Your task to perform on an android device: uninstall "Firefox Browser" Image 0: 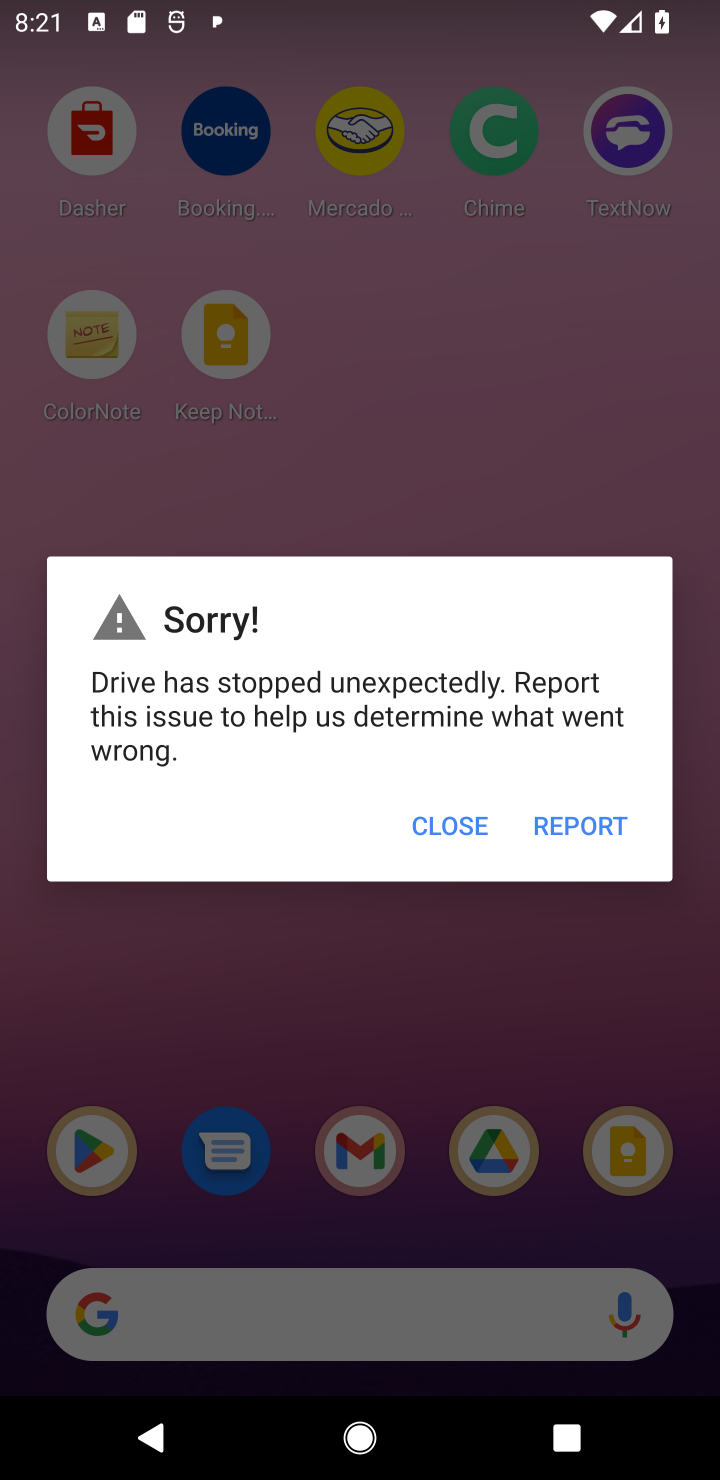
Step 0: press home button
Your task to perform on an android device: uninstall "Firefox Browser" Image 1: 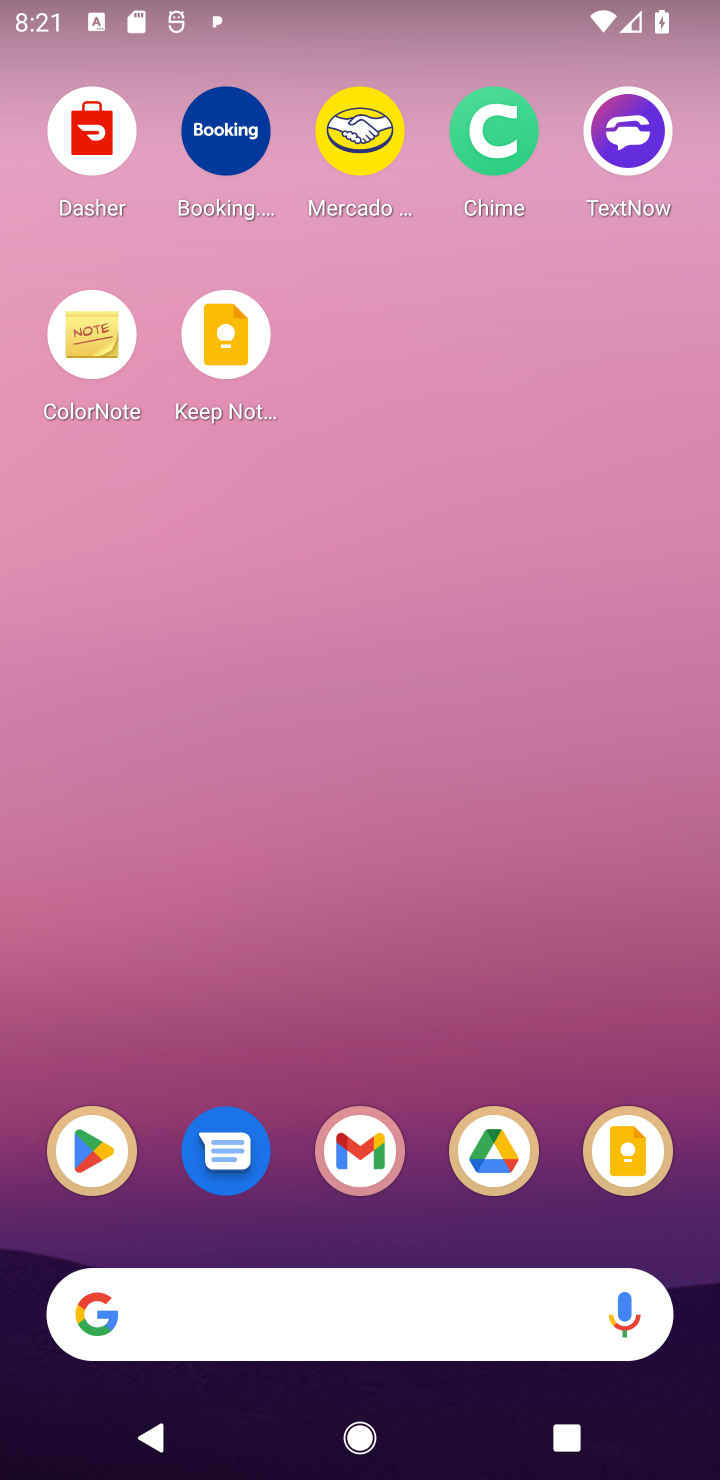
Step 1: click (95, 1165)
Your task to perform on an android device: uninstall "Firefox Browser" Image 2: 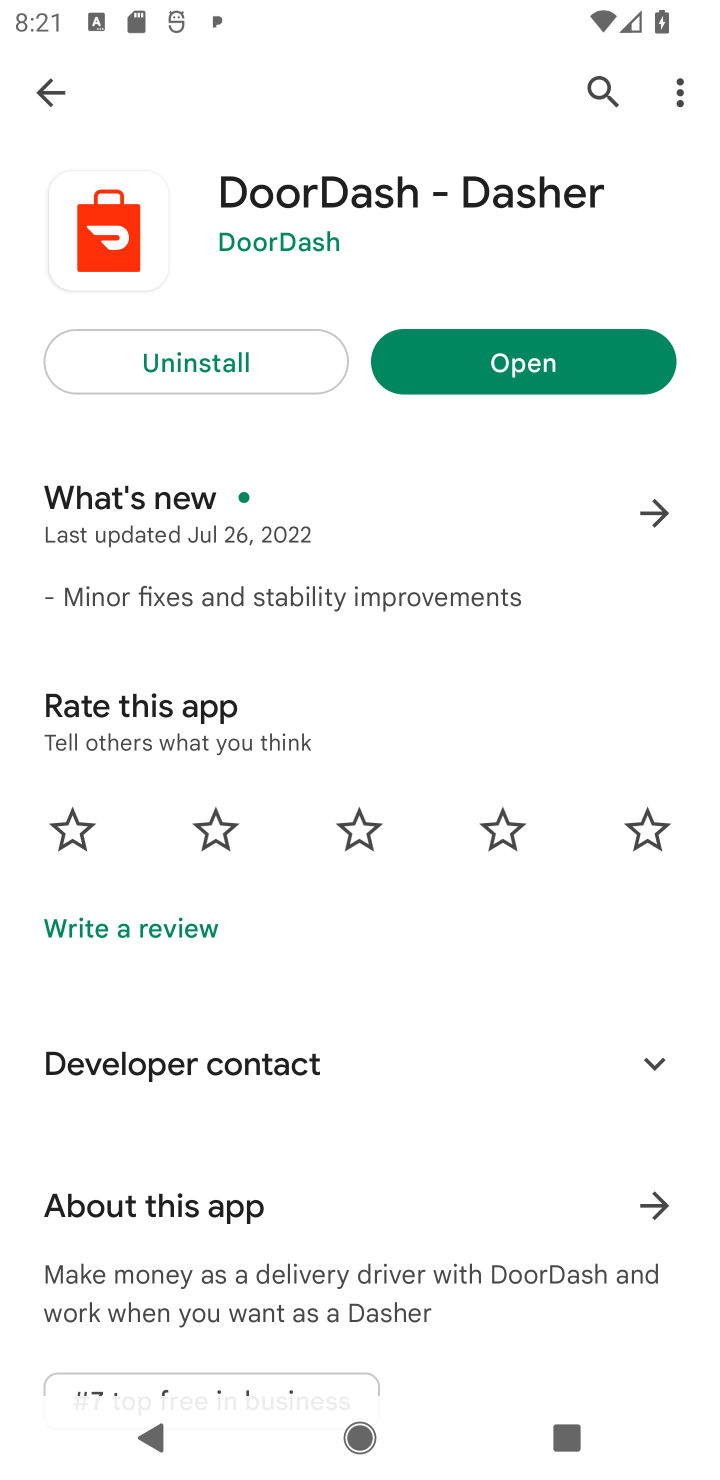
Step 2: click (603, 93)
Your task to perform on an android device: uninstall "Firefox Browser" Image 3: 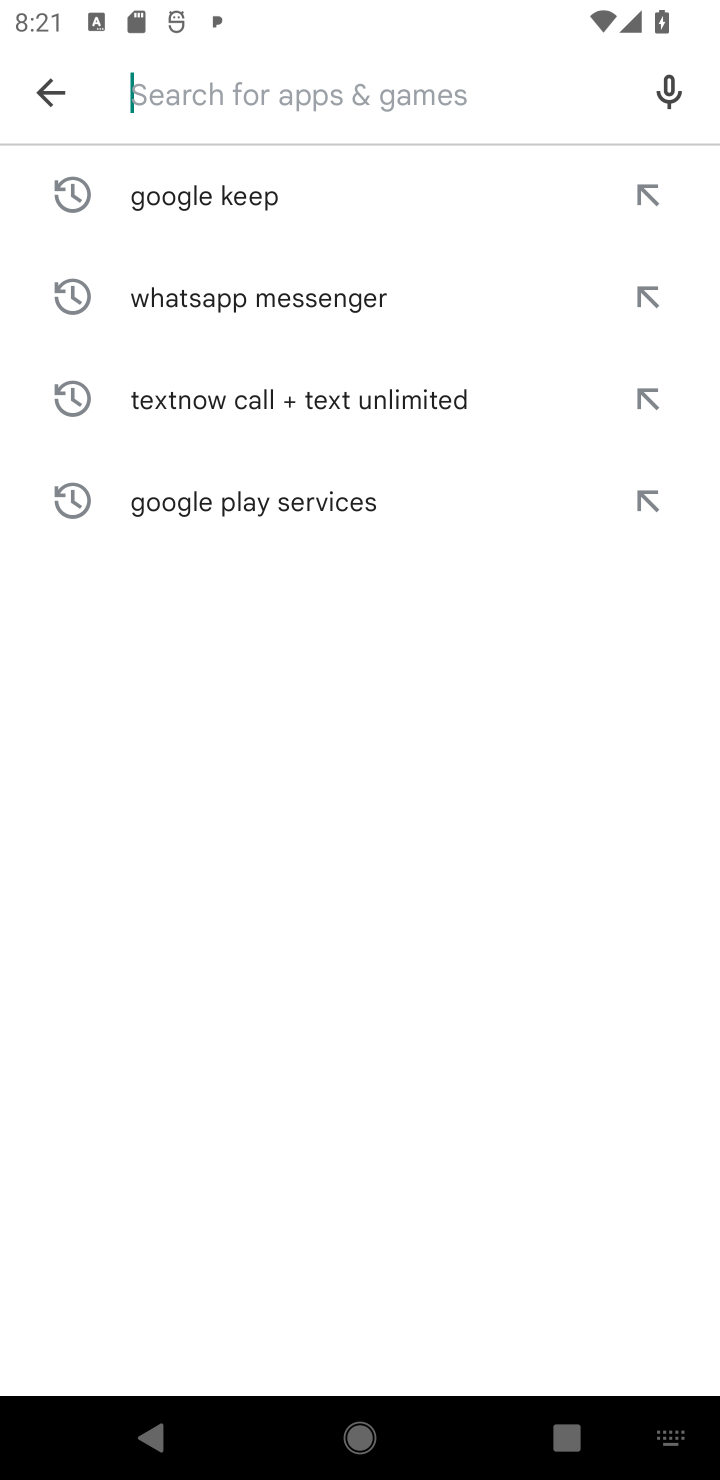
Step 3: type "Firefox Browser"
Your task to perform on an android device: uninstall "Firefox Browser" Image 4: 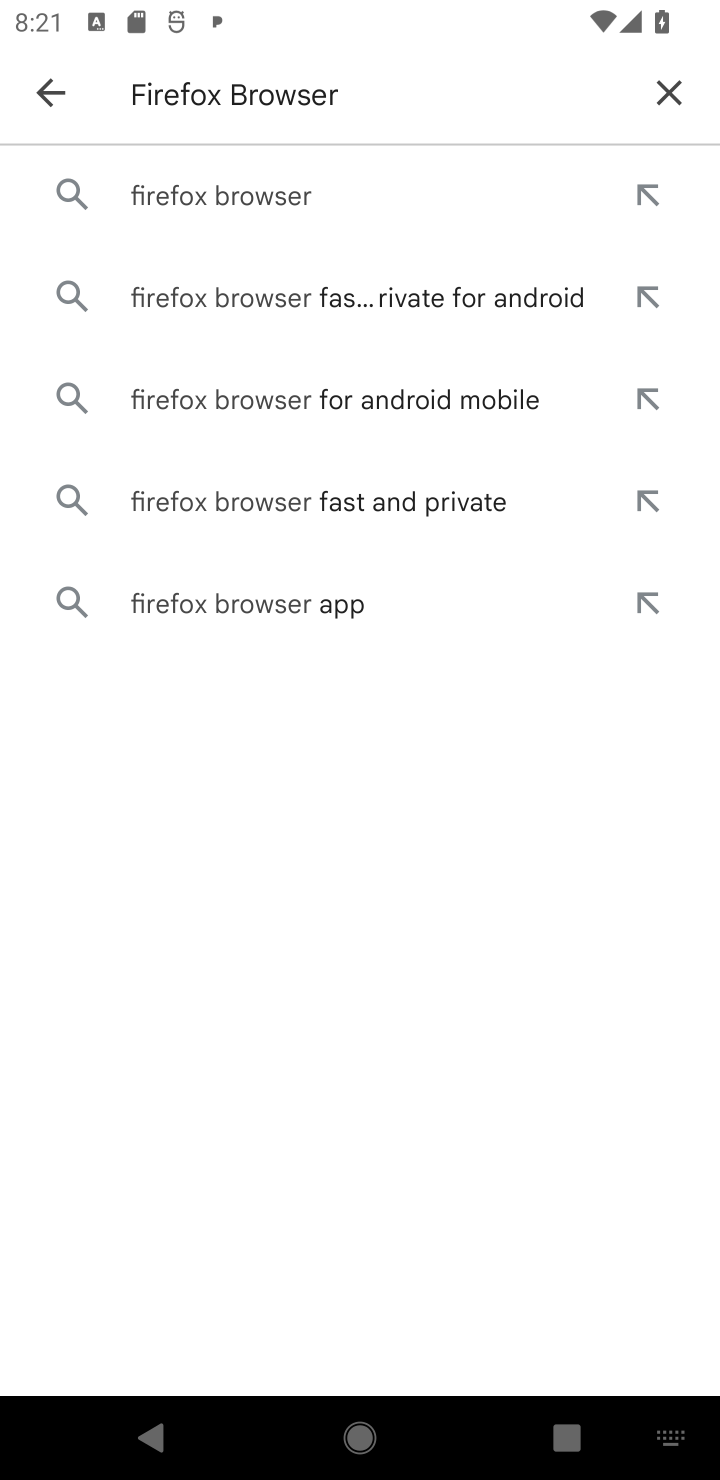
Step 4: click (201, 208)
Your task to perform on an android device: uninstall "Firefox Browser" Image 5: 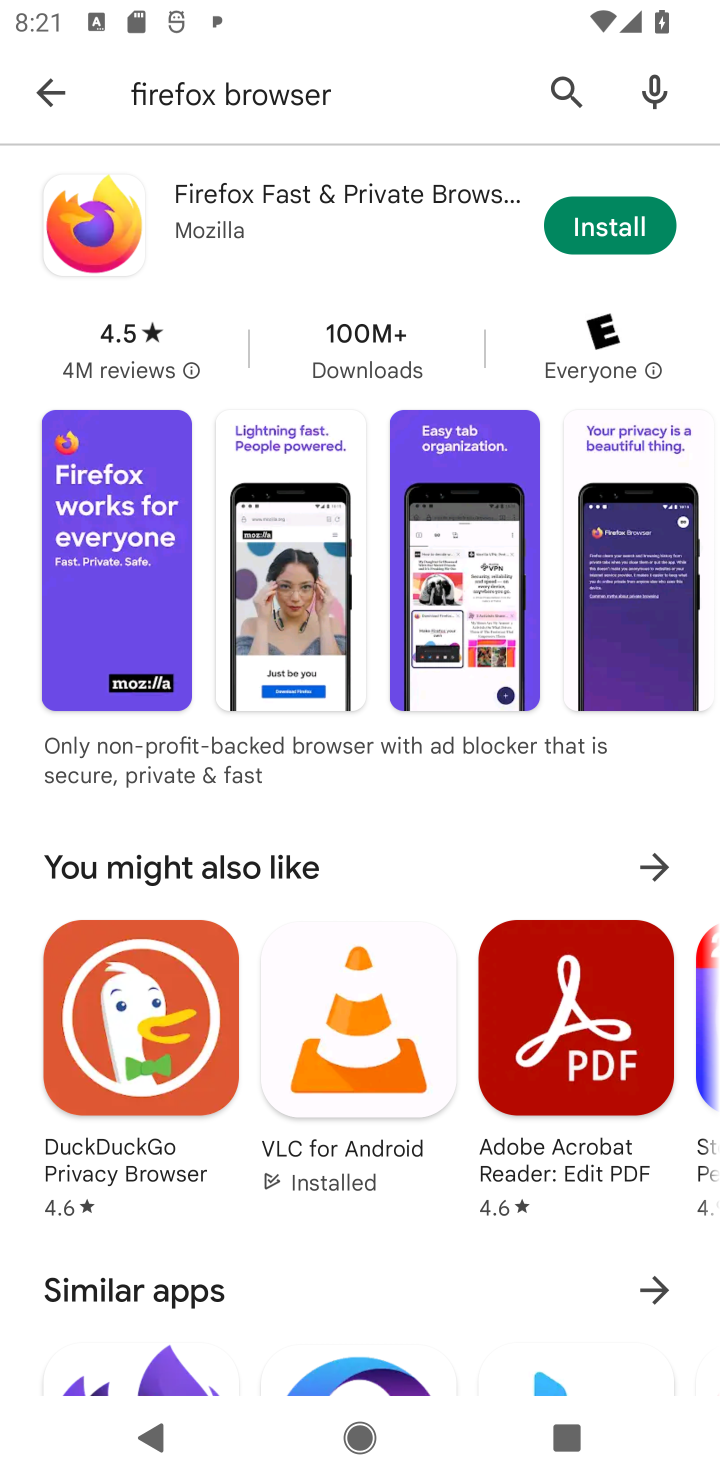
Step 5: task complete